Your task to perform on an android device: Show me productivity apps on the Play Store Image 0: 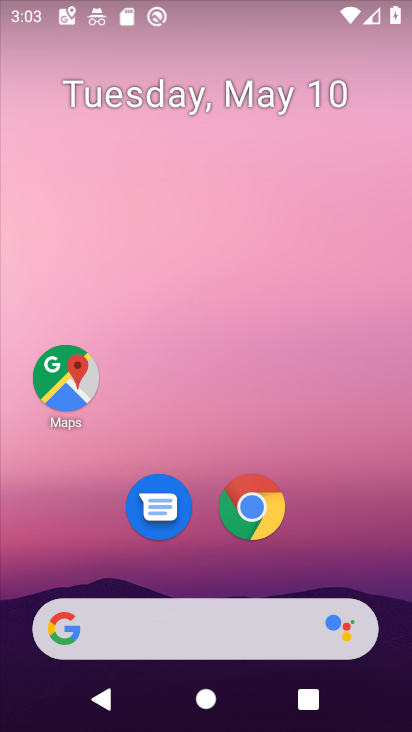
Step 0: drag from (199, 580) to (226, 178)
Your task to perform on an android device: Show me productivity apps on the Play Store Image 1: 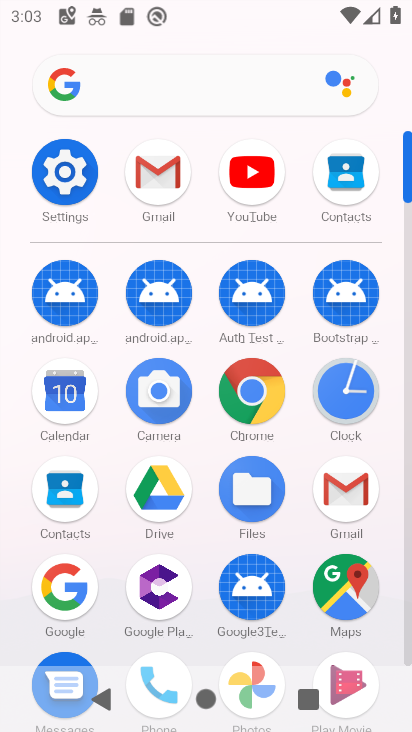
Step 1: drag from (202, 562) to (221, 198)
Your task to perform on an android device: Show me productivity apps on the Play Store Image 2: 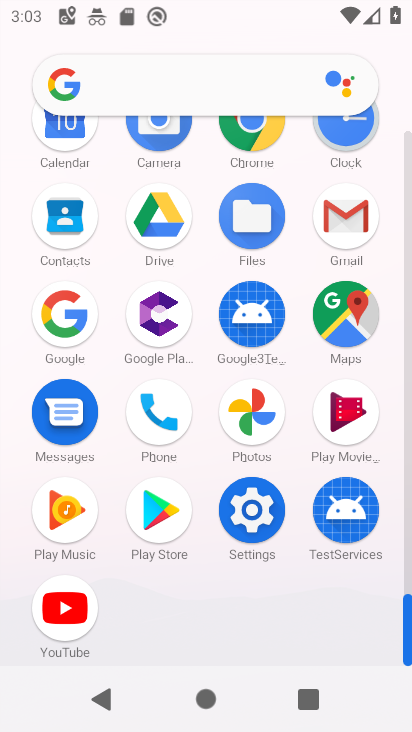
Step 2: click (161, 515)
Your task to perform on an android device: Show me productivity apps on the Play Store Image 3: 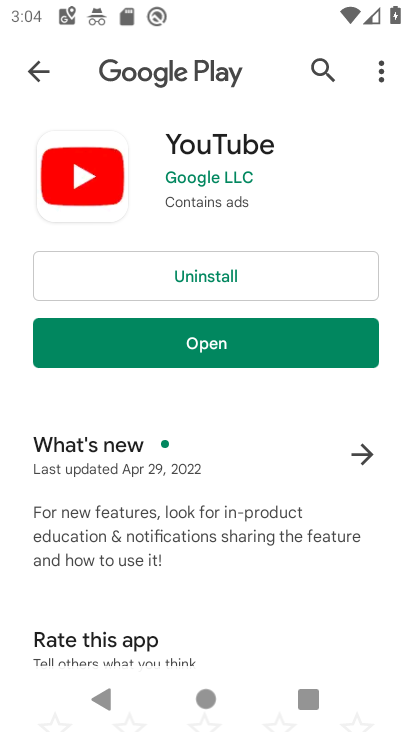
Step 3: click (212, 353)
Your task to perform on an android device: Show me productivity apps on the Play Store Image 4: 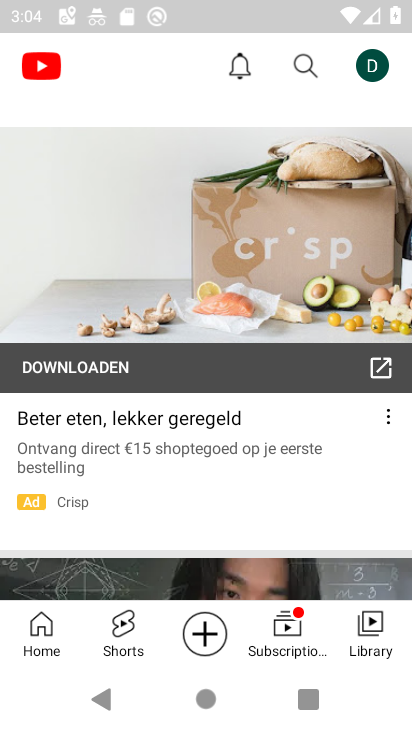
Step 4: press home button
Your task to perform on an android device: Show me productivity apps on the Play Store Image 5: 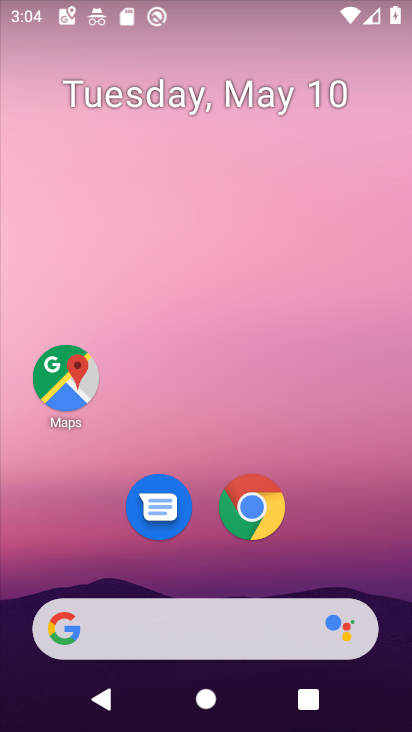
Step 5: drag from (224, 560) to (238, 239)
Your task to perform on an android device: Show me productivity apps on the Play Store Image 6: 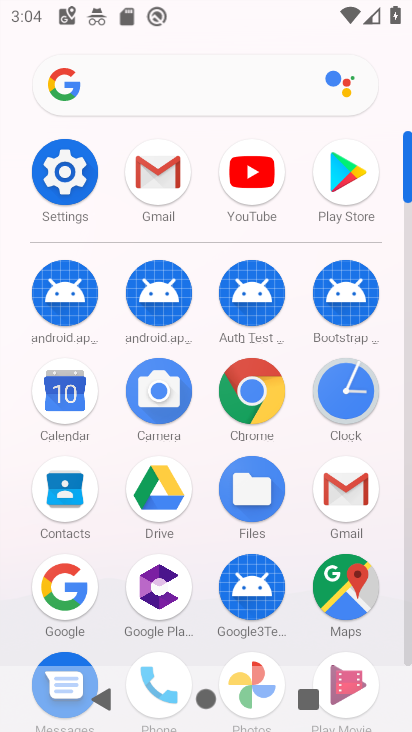
Step 6: drag from (201, 528) to (206, 231)
Your task to perform on an android device: Show me productivity apps on the Play Store Image 7: 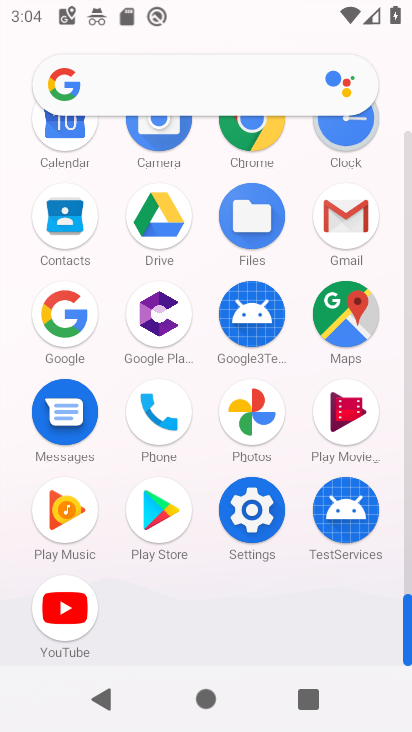
Step 7: click (154, 510)
Your task to perform on an android device: Show me productivity apps on the Play Store Image 8: 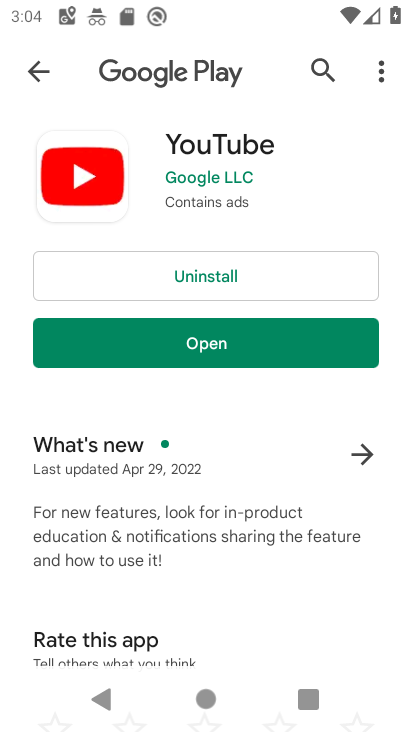
Step 8: click (47, 70)
Your task to perform on an android device: Show me productivity apps on the Play Store Image 9: 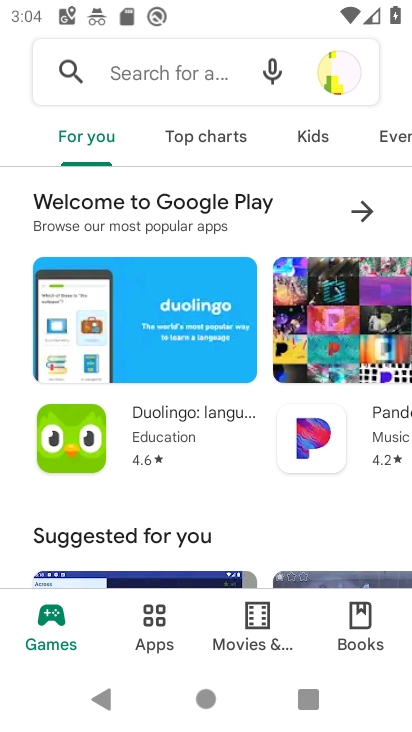
Step 9: click (162, 638)
Your task to perform on an android device: Show me productivity apps on the Play Store Image 10: 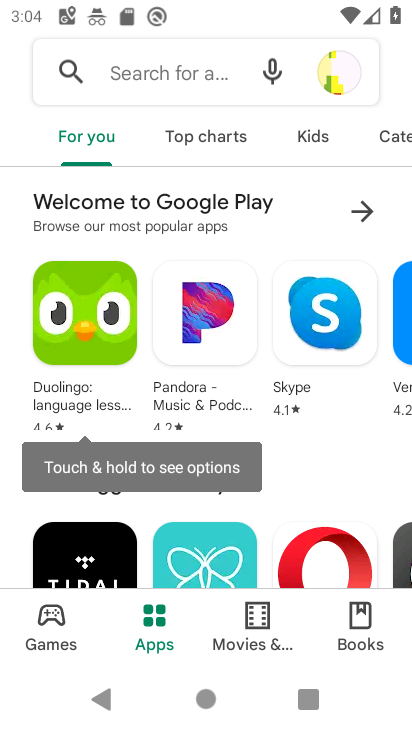
Step 10: drag from (341, 147) to (103, 155)
Your task to perform on an android device: Show me productivity apps on the Play Store Image 11: 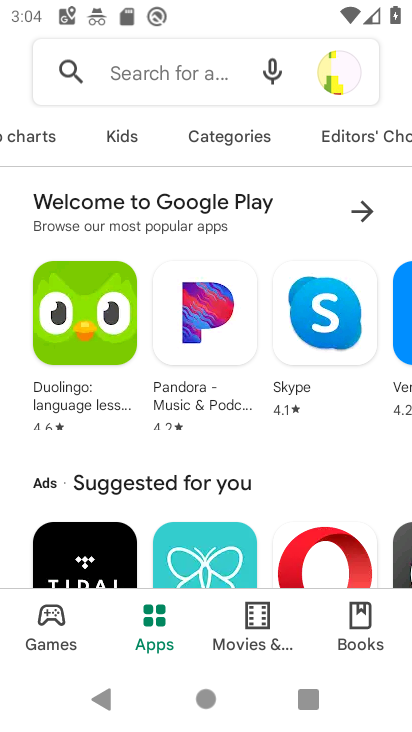
Step 11: click (228, 132)
Your task to perform on an android device: Show me productivity apps on the Play Store Image 12: 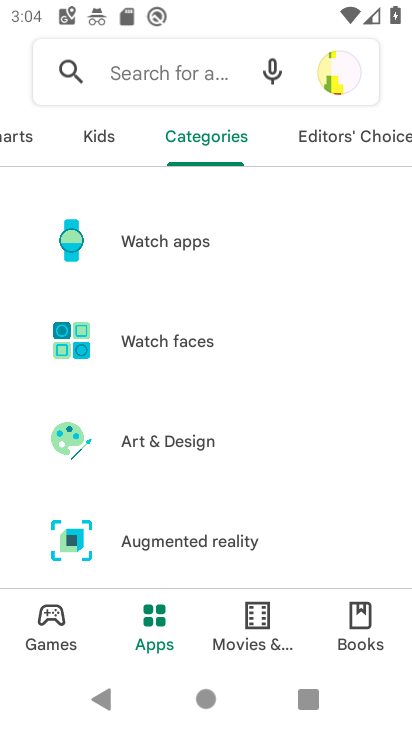
Step 12: drag from (194, 499) to (214, 164)
Your task to perform on an android device: Show me productivity apps on the Play Store Image 13: 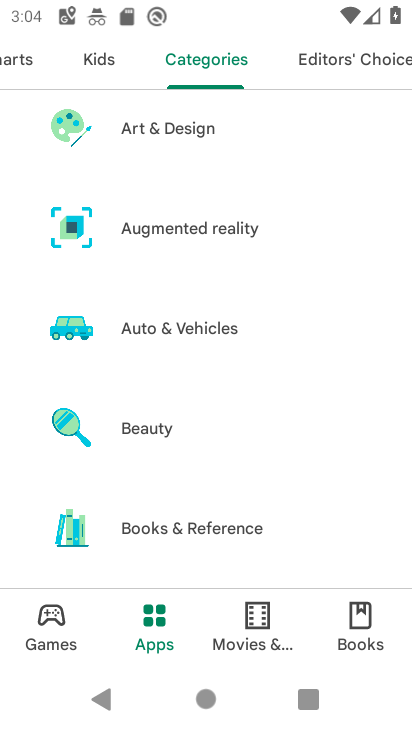
Step 13: drag from (202, 522) to (229, 183)
Your task to perform on an android device: Show me productivity apps on the Play Store Image 14: 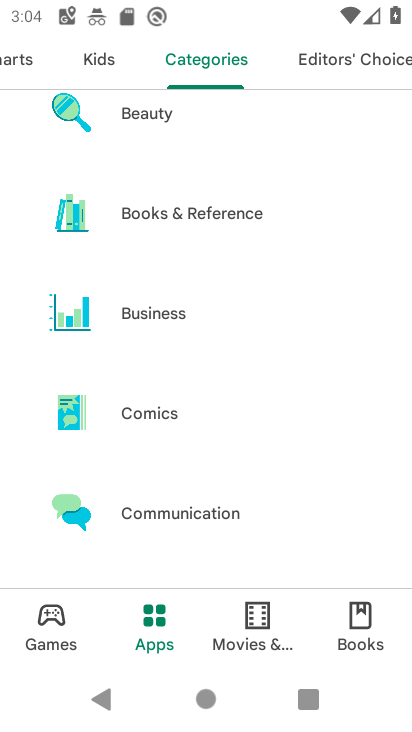
Step 14: drag from (226, 540) to (244, 223)
Your task to perform on an android device: Show me productivity apps on the Play Store Image 15: 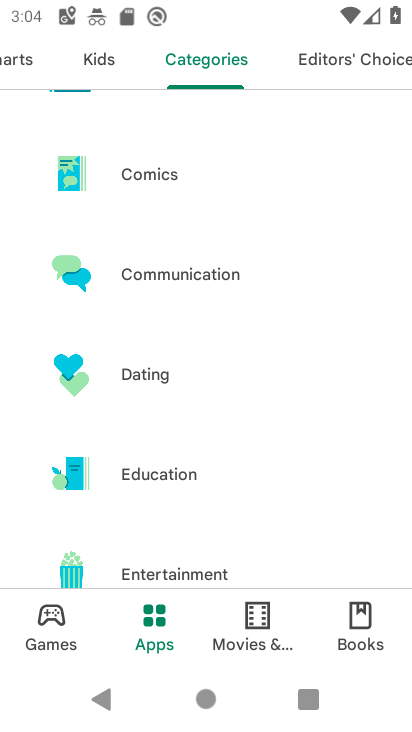
Step 15: drag from (192, 542) to (225, 225)
Your task to perform on an android device: Show me productivity apps on the Play Store Image 16: 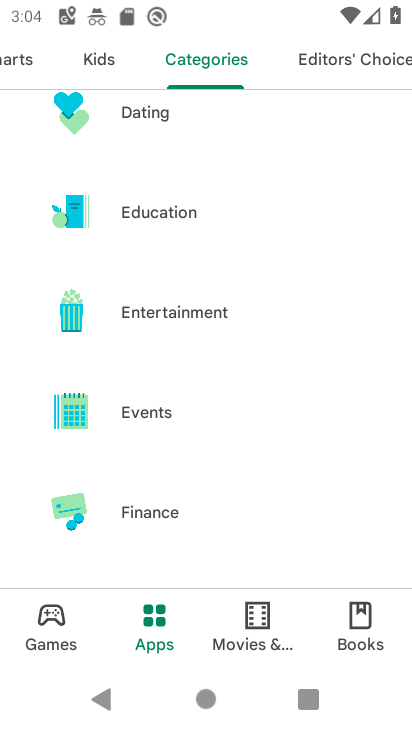
Step 16: drag from (190, 544) to (197, 269)
Your task to perform on an android device: Show me productivity apps on the Play Store Image 17: 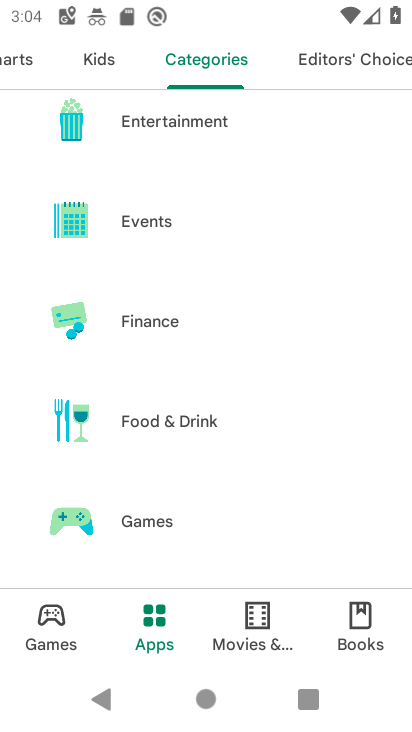
Step 17: drag from (182, 549) to (227, 154)
Your task to perform on an android device: Show me productivity apps on the Play Store Image 18: 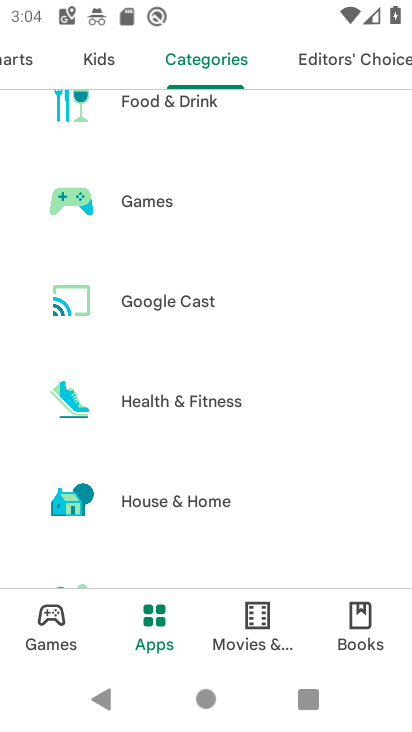
Step 18: drag from (174, 560) to (219, 202)
Your task to perform on an android device: Show me productivity apps on the Play Store Image 19: 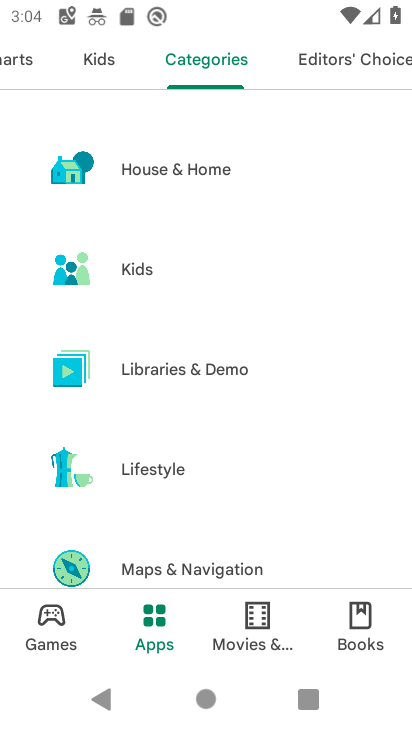
Step 19: drag from (185, 545) to (214, 231)
Your task to perform on an android device: Show me productivity apps on the Play Store Image 20: 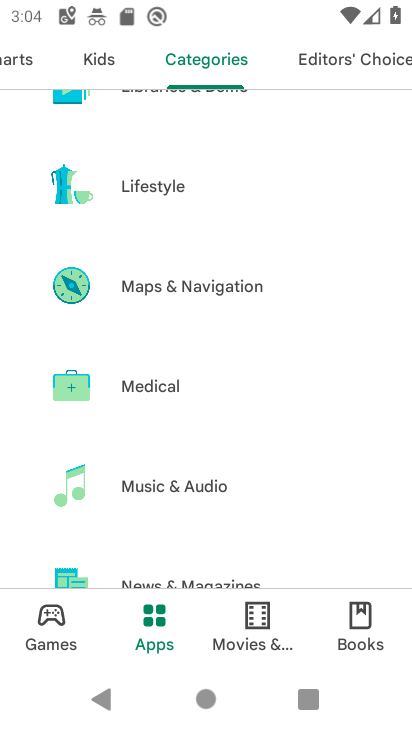
Step 20: drag from (196, 527) to (212, 258)
Your task to perform on an android device: Show me productivity apps on the Play Store Image 21: 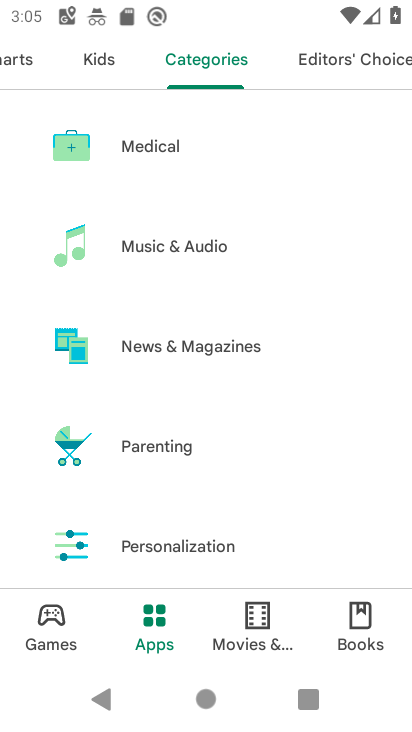
Step 21: drag from (206, 452) to (210, 221)
Your task to perform on an android device: Show me productivity apps on the Play Store Image 22: 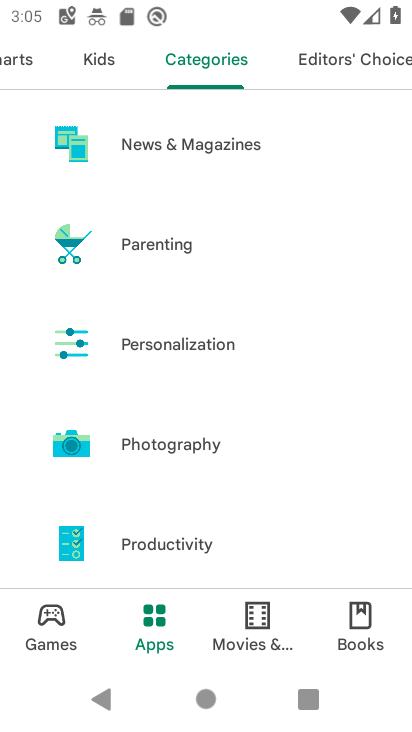
Step 22: click (176, 540)
Your task to perform on an android device: Show me productivity apps on the Play Store Image 23: 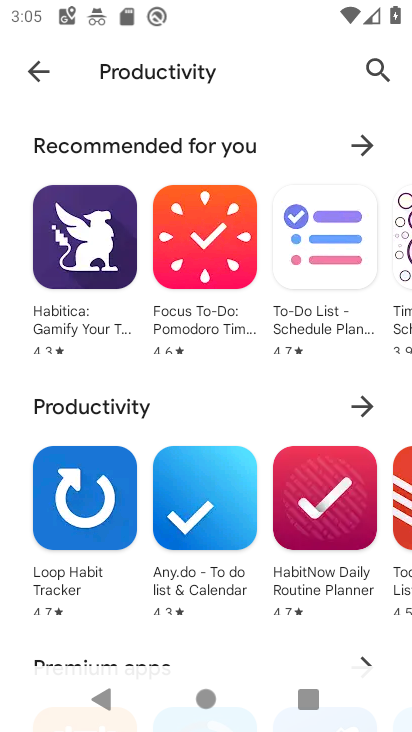
Step 23: task complete